Your task to perform on an android device: change the clock display to digital Image 0: 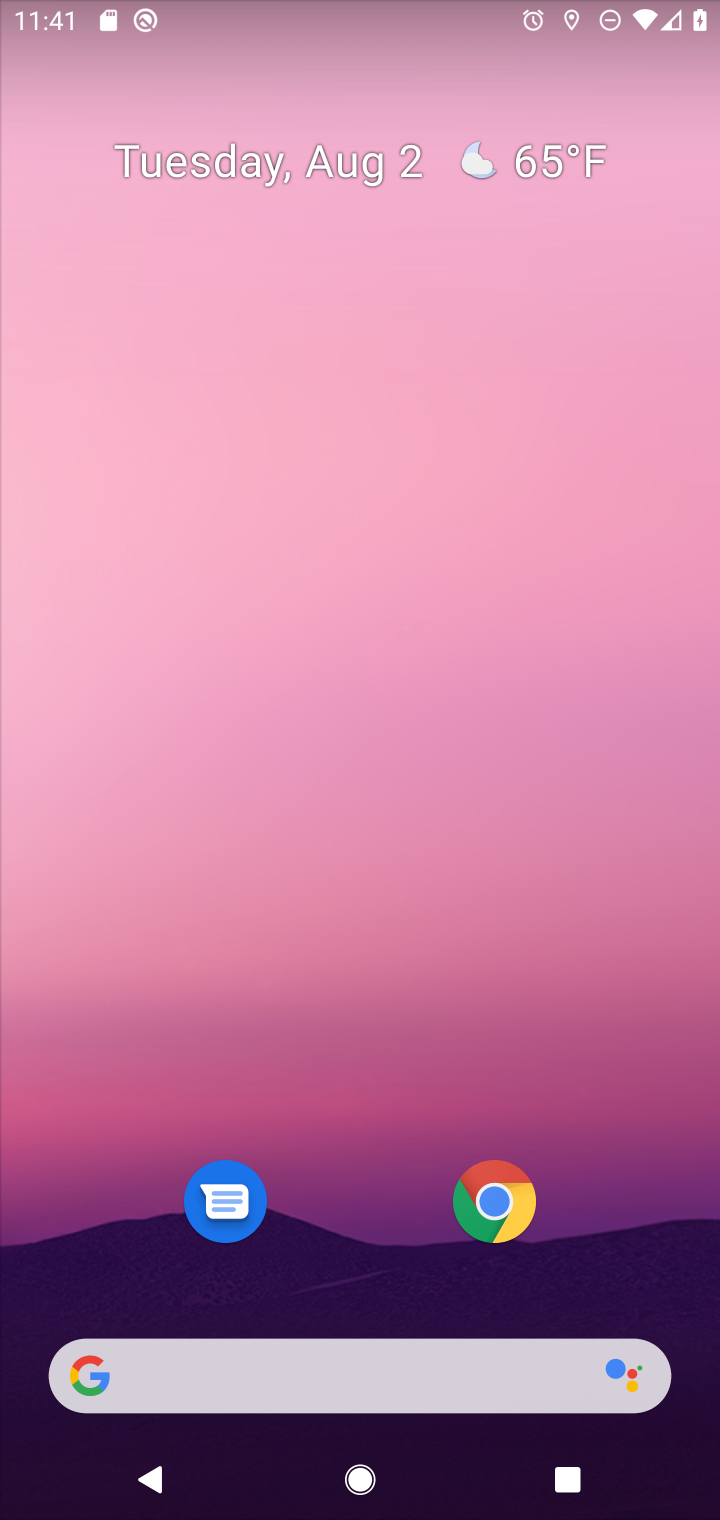
Step 0: drag from (331, 1301) to (386, 1397)
Your task to perform on an android device: change the clock display to digital Image 1: 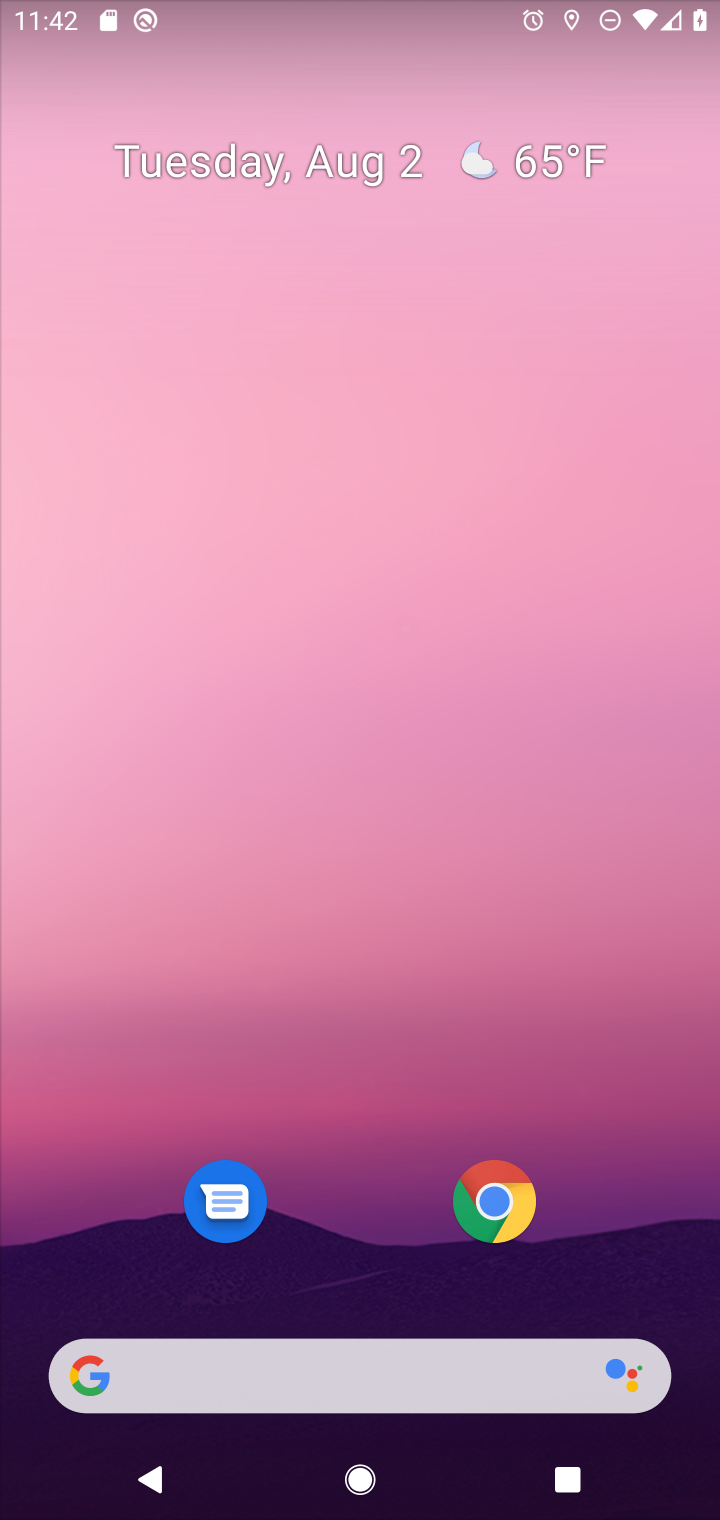
Step 1: drag from (469, 1096) to (459, 225)
Your task to perform on an android device: change the clock display to digital Image 2: 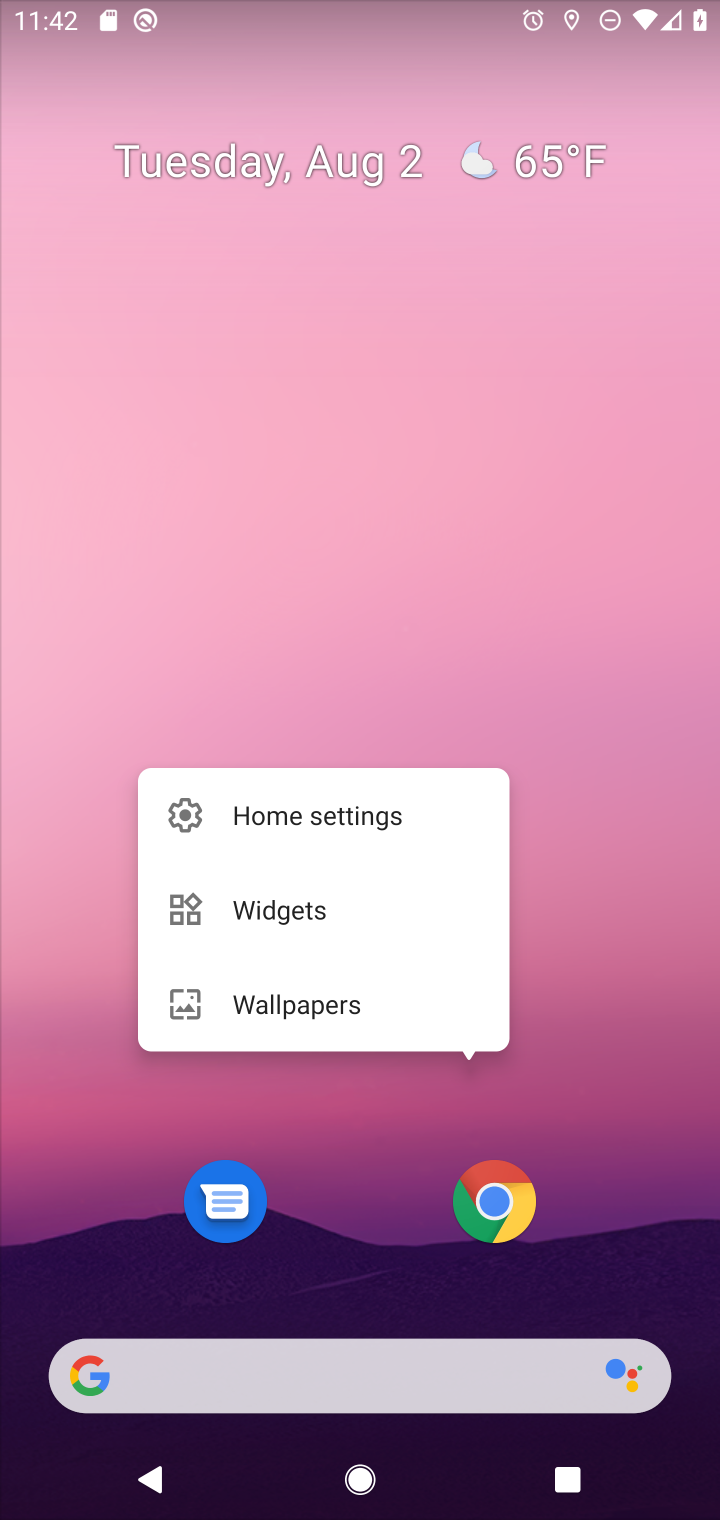
Step 2: click (358, 1312)
Your task to perform on an android device: change the clock display to digital Image 3: 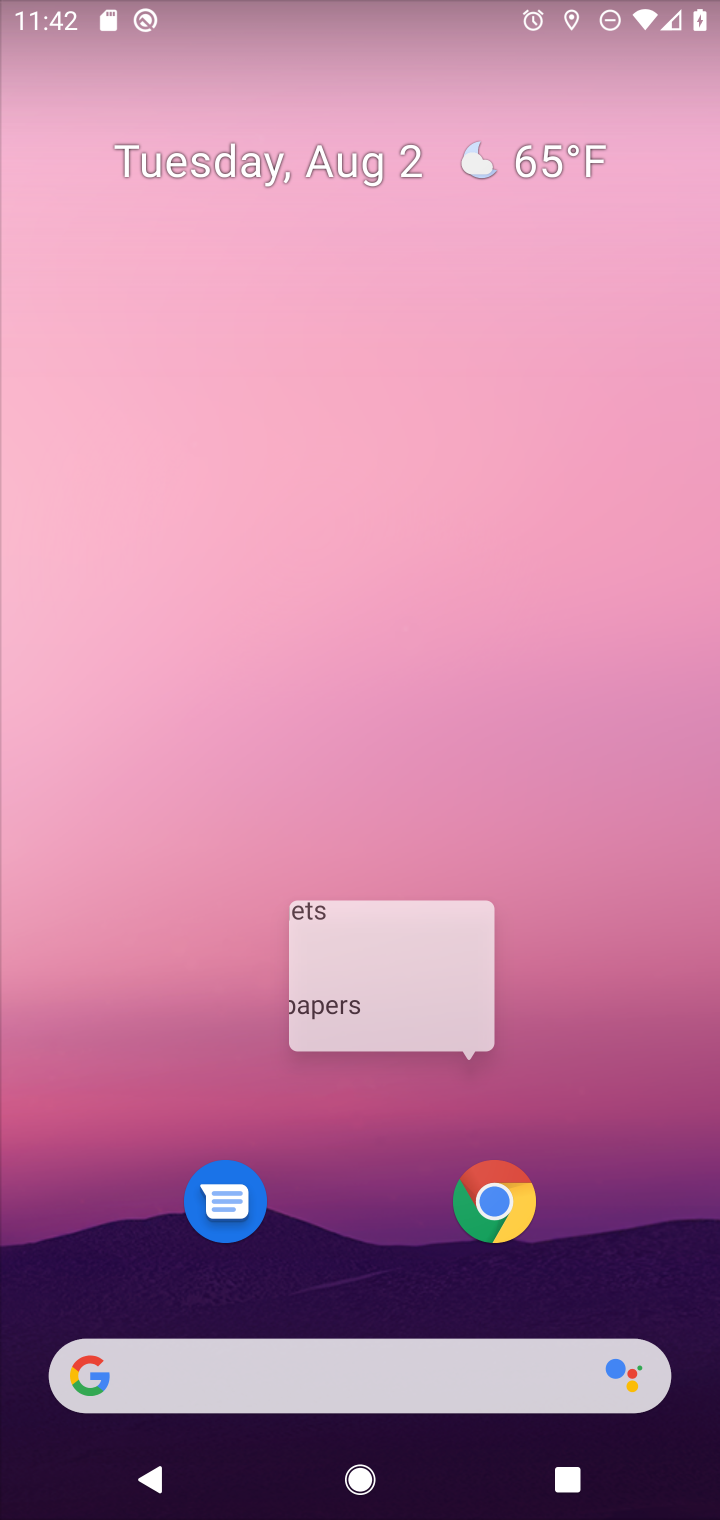
Step 3: drag from (358, 1314) to (367, 134)
Your task to perform on an android device: change the clock display to digital Image 4: 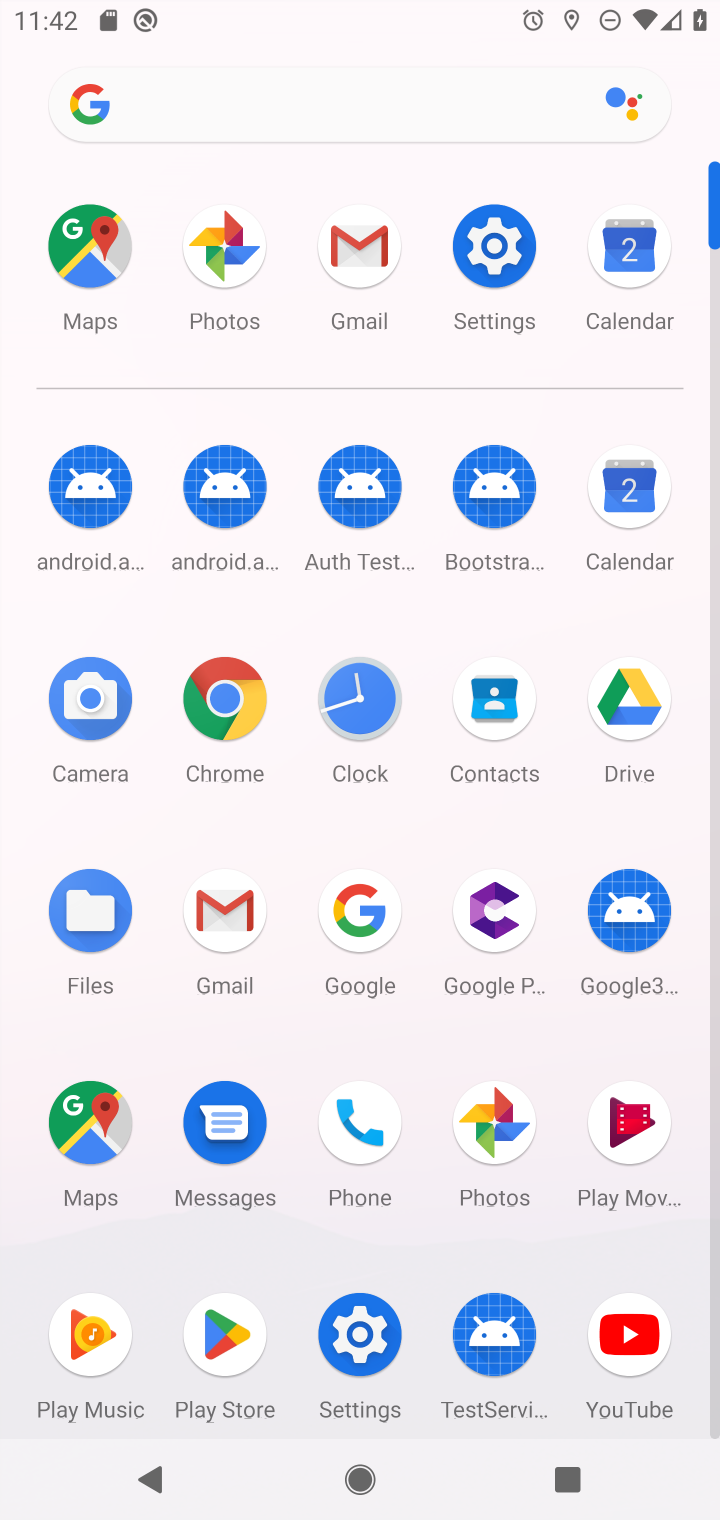
Step 4: click (354, 734)
Your task to perform on an android device: change the clock display to digital Image 5: 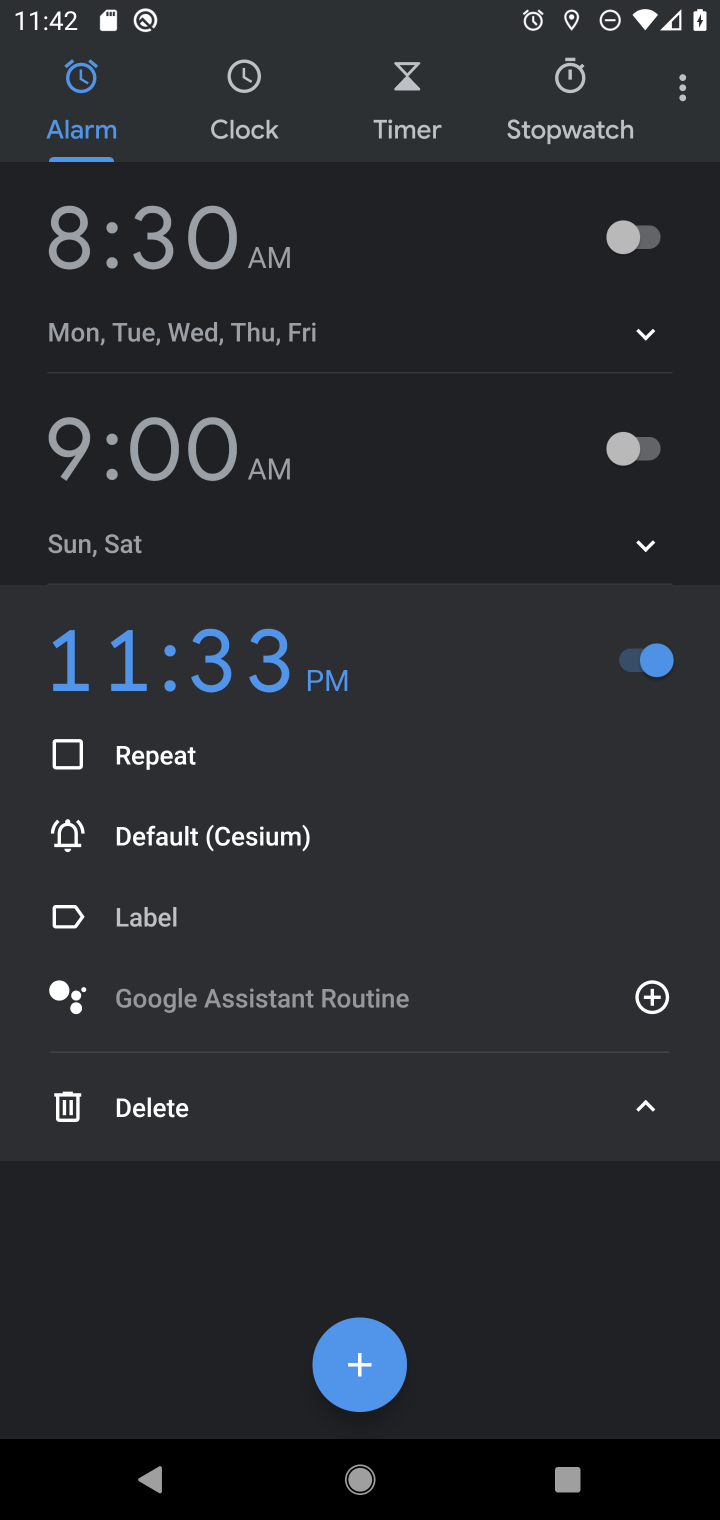
Step 5: drag from (677, 88) to (568, 206)
Your task to perform on an android device: change the clock display to digital Image 6: 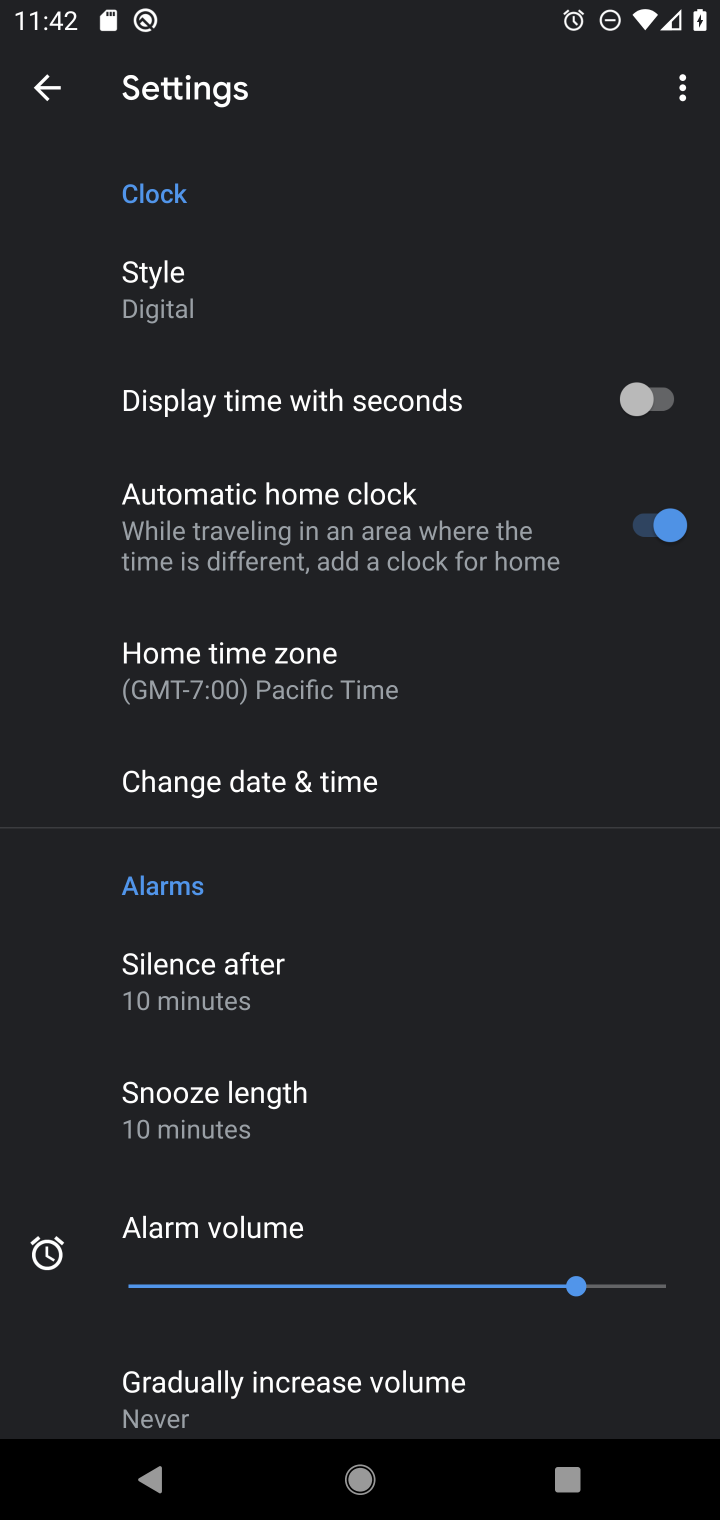
Step 6: click (215, 342)
Your task to perform on an android device: change the clock display to digital Image 7: 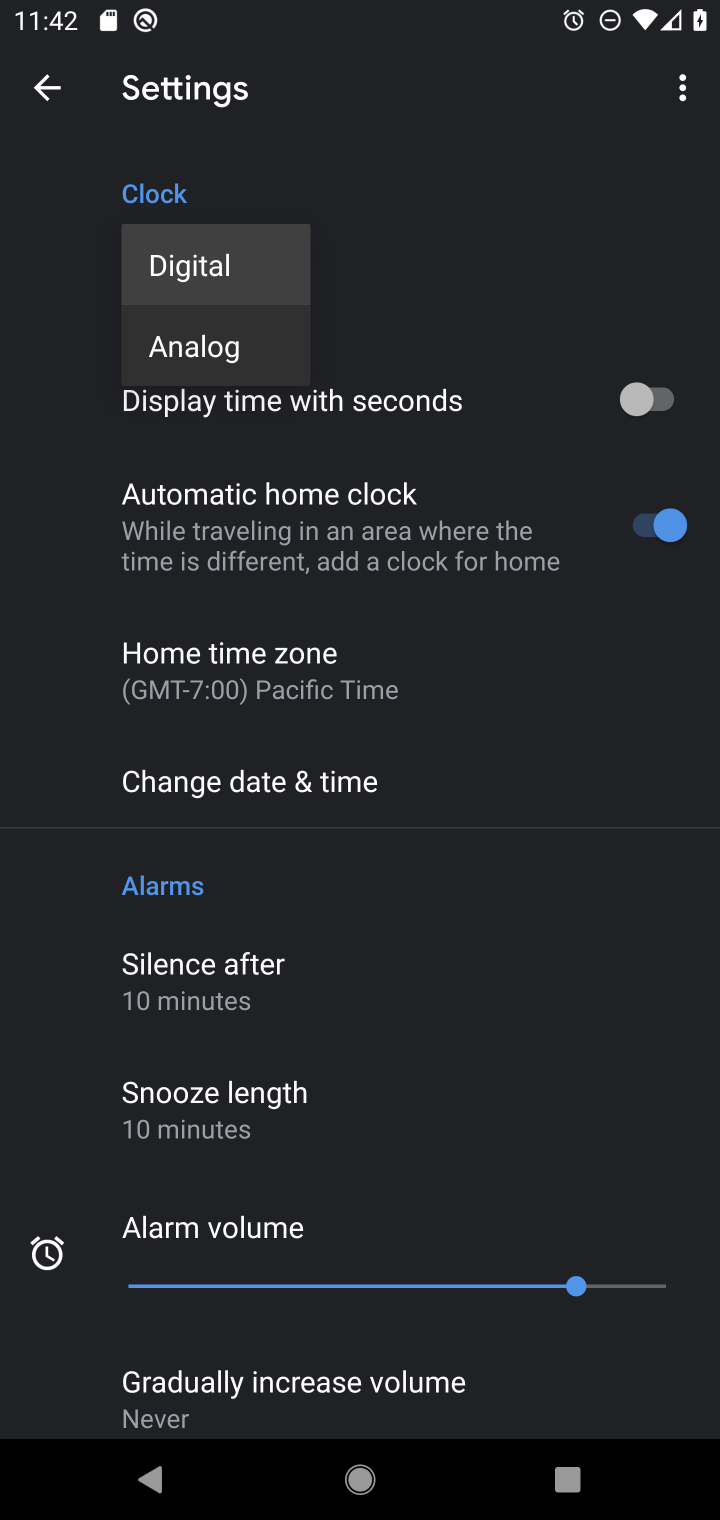
Step 7: click (237, 287)
Your task to perform on an android device: change the clock display to digital Image 8: 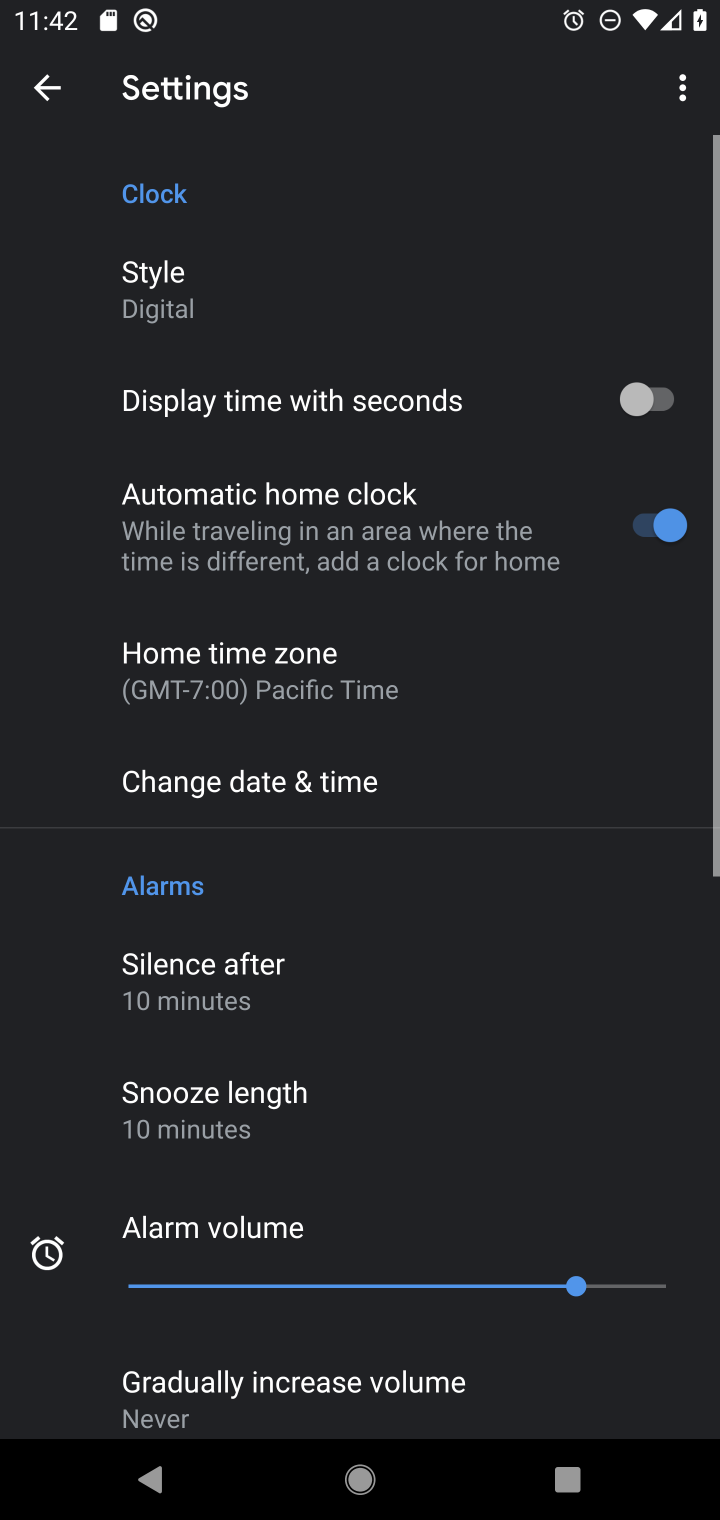
Step 8: task complete